Your task to perform on an android device: toggle show notifications on the lock screen Image 0: 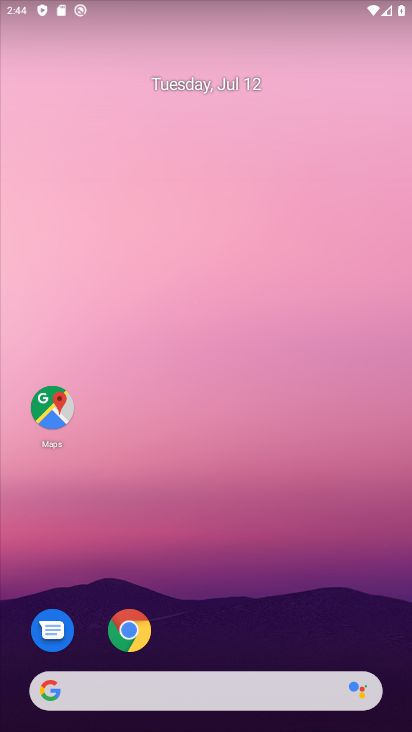
Step 0: drag from (227, 656) to (284, 207)
Your task to perform on an android device: toggle show notifications on the lock screen Image 1: 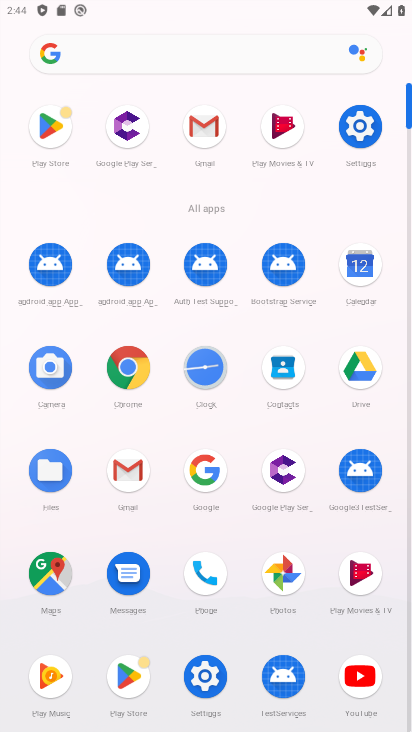
Step 1: click (206, 685)
Your task to perform on an android device: toggle show notifications on the lock screen Image 2: 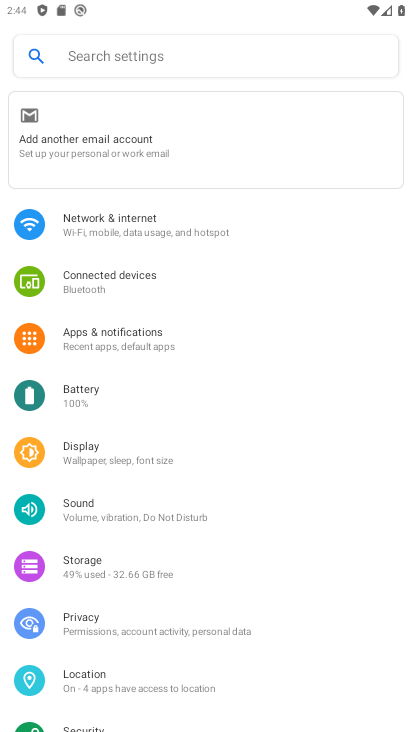
Step 2: click (145, 345)
Your task to perform on an android device: toggle show notifications on the lock screen Image 3: 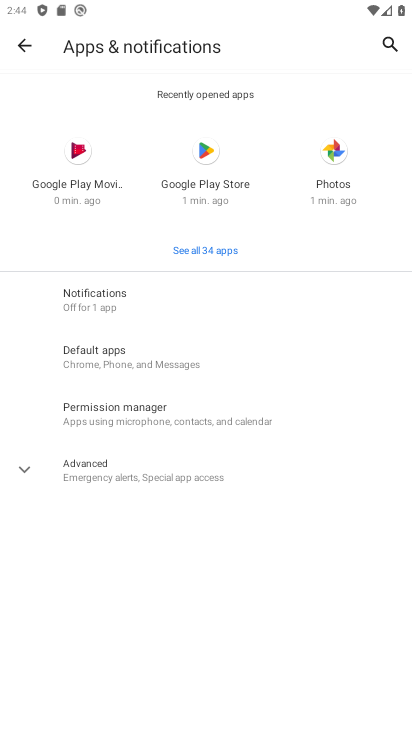
Step 3: click (110, 305)
Your task to perform on an android device: toggle show notifications on the lock screen Image 4: 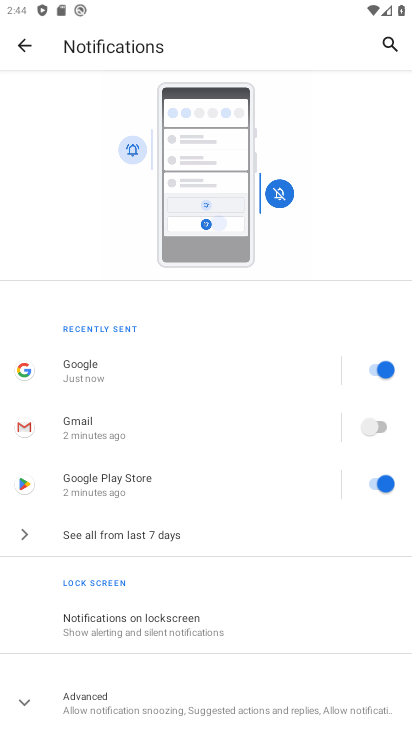
Step 4: drag from (183, 579) to (191, 456)
Your task to perform on an android device: toggle show notifications on the lock screen Image 5: 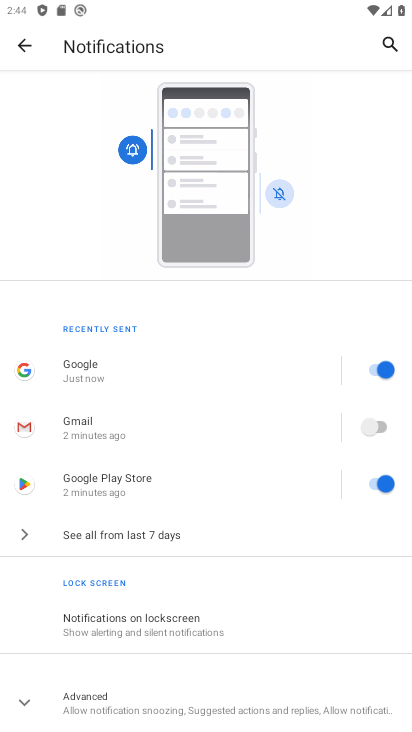
Step 5: click (155, 628)
Your task to perform on an android device: toggle show notifications on the lock screen Image 6: 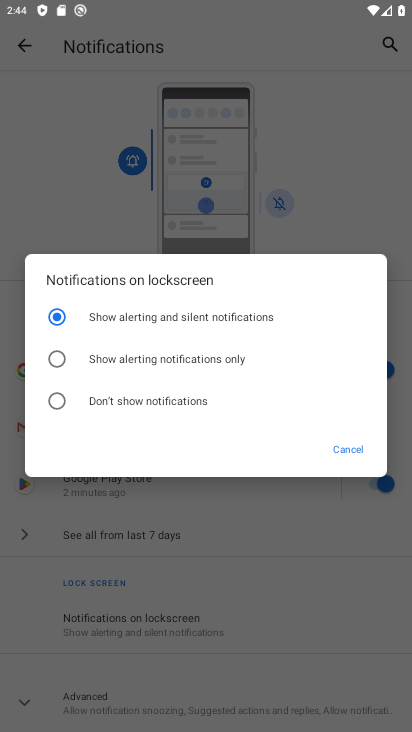
Step 6: click (120, 402)
Your task to perform on an android device: toggle show notifications on the lock screen Image 7: 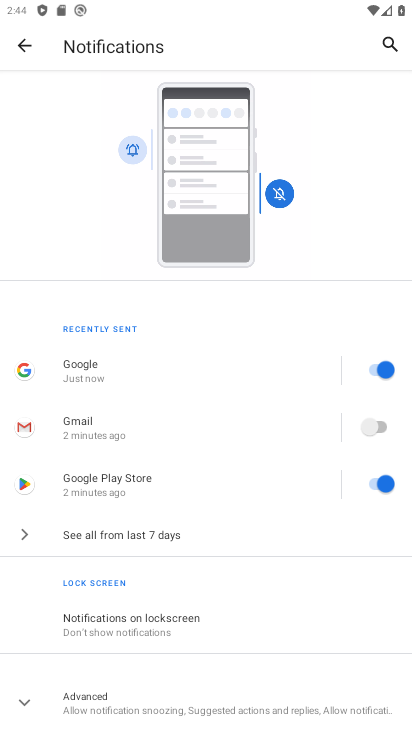
Step 7: task complete